Your task to perform on an android device: What's on my calendar tomorrow? Image 0: 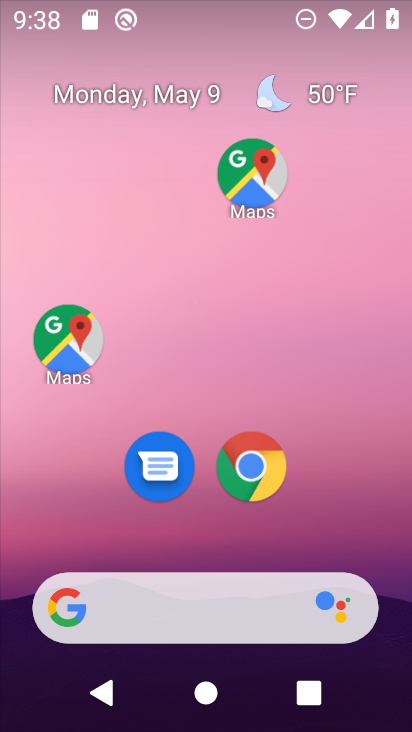
Step 0: drag from (231, 550) to (207, 150)
Your task to perform on an android device: What's on my calendar tomorrow? Image 1: 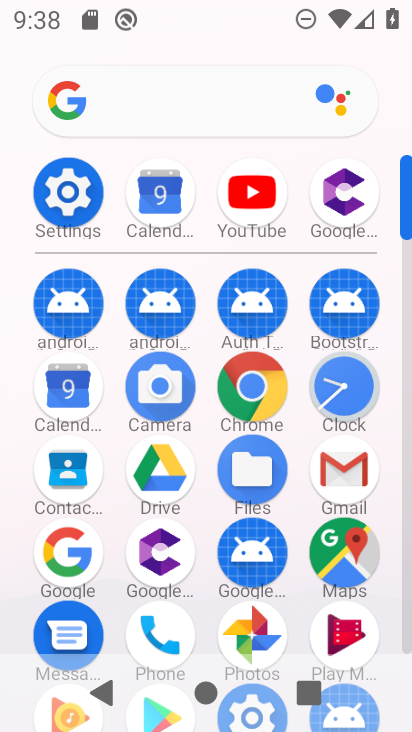
Step 1: click (65, 394)
Your task to perform on an android device: What's on my calendar tomorrow? Image 2: 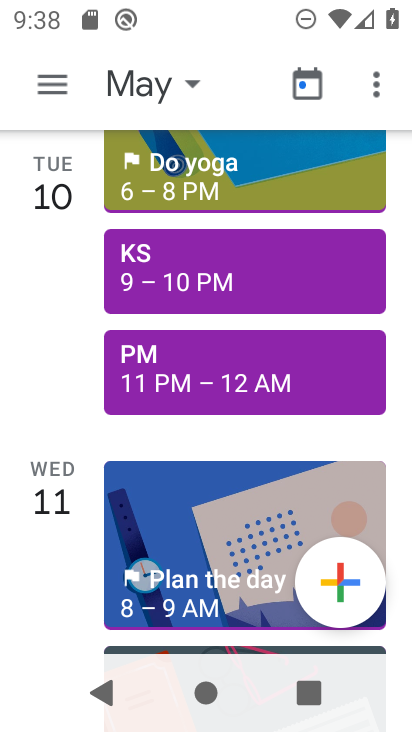
Step 2: task complete